Your task to perform on an android device: Search for "usb-b" on walmart, select the first entry, add it to the cart, then select checkout. Image 0: 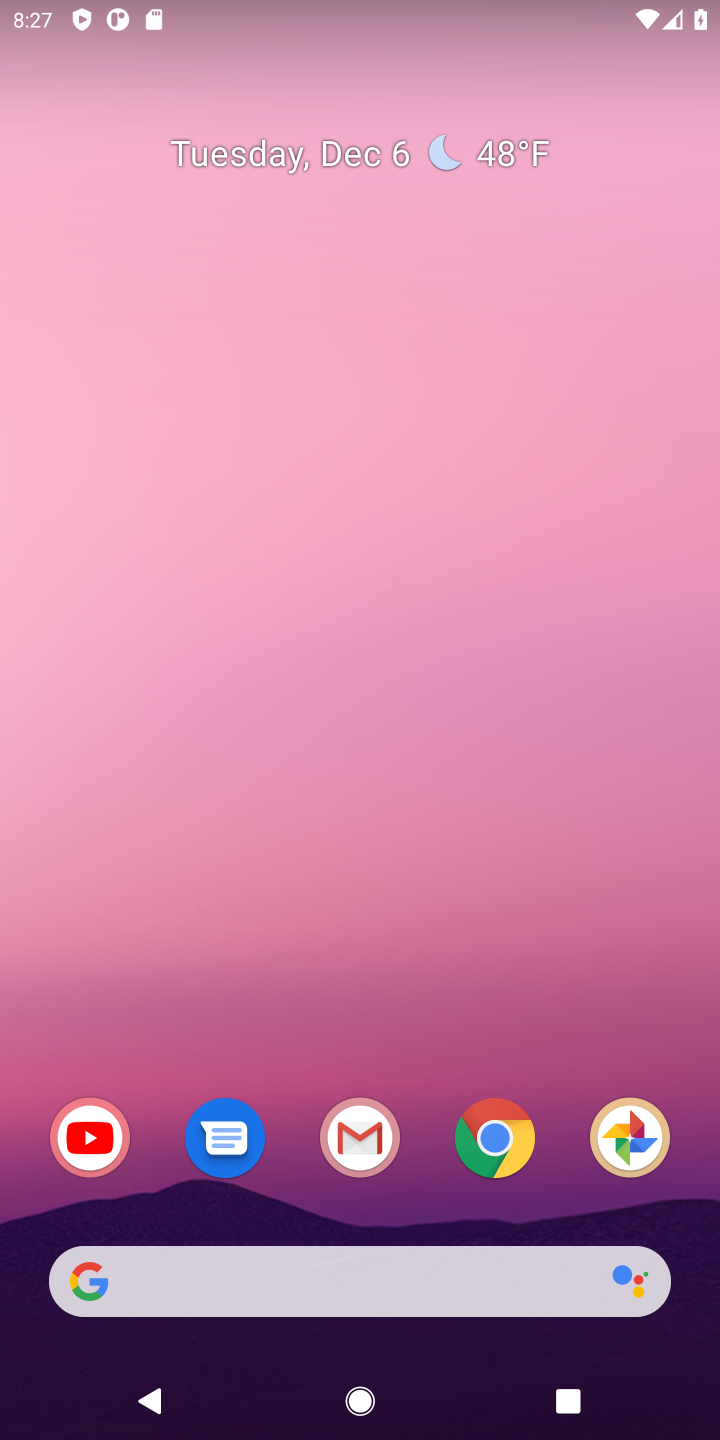
Step 0: click (482, 1146)
Your task to perform on an android device: Search for "usb-b" on walmart, select the first entry, add it to the cart, then select checkout. Image 1: 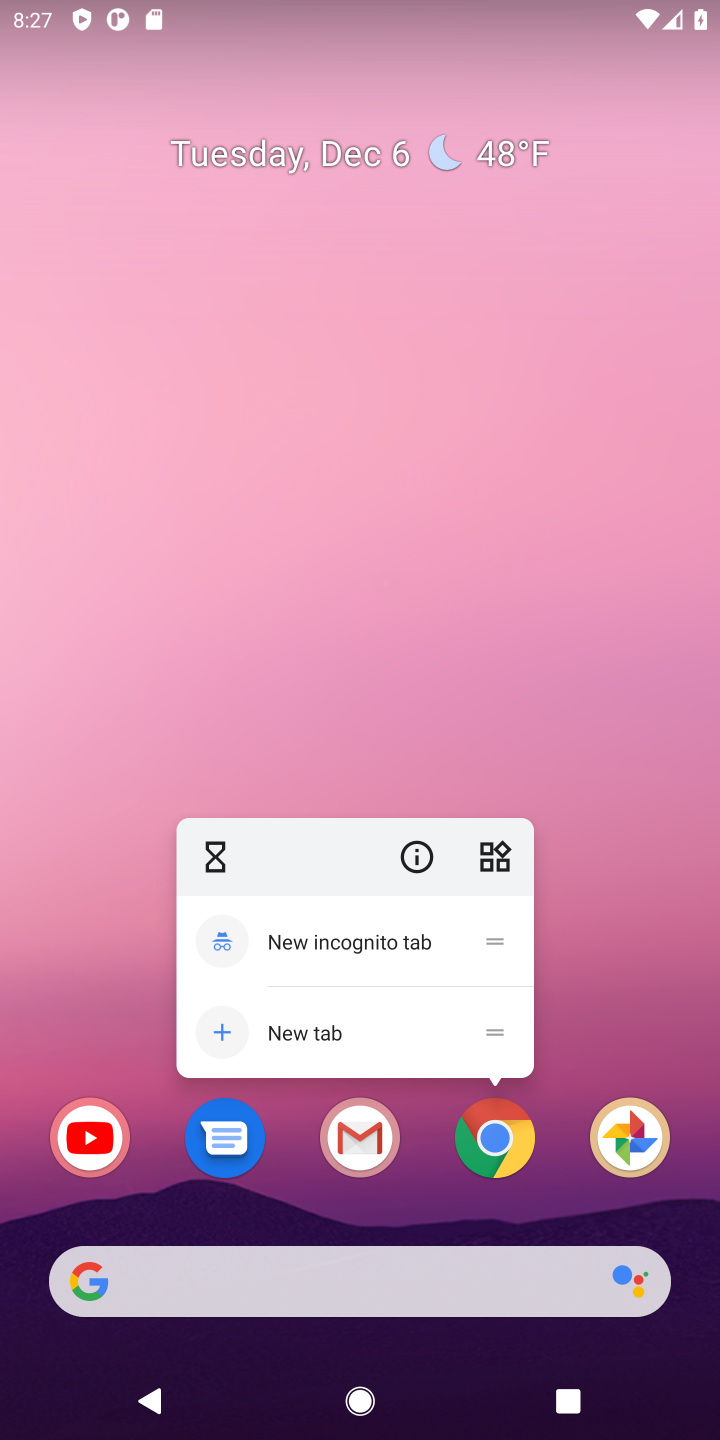
Step 1: click (482, 1146)
Your task to perform on an android device: Search for "usb-b" on walmart, select the first entry, add it to the cart, then select checkout. Image 2: 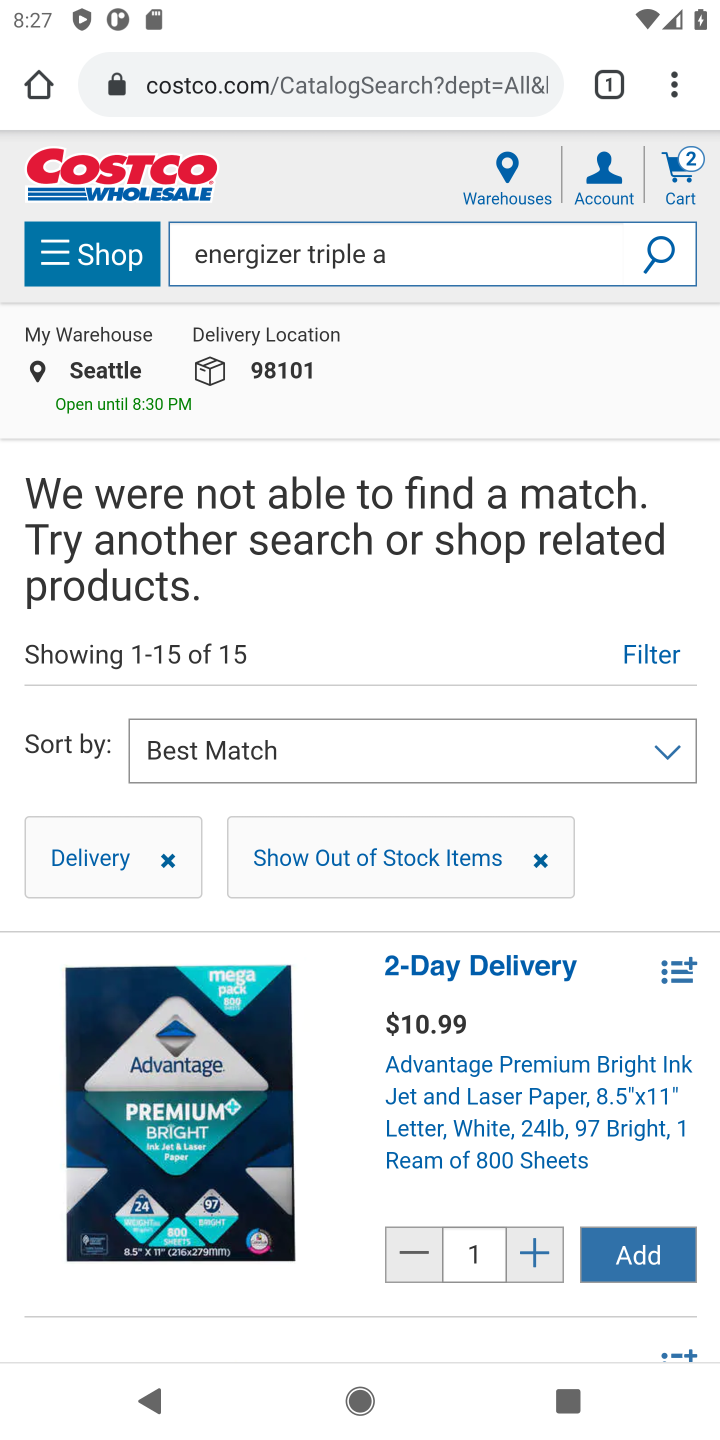
Step 2: click (298, 88)
Your task to perform on an android device: Search for "usb-b" on walmart, select the first entry, add it to the cart, then select checkout. Image 3: 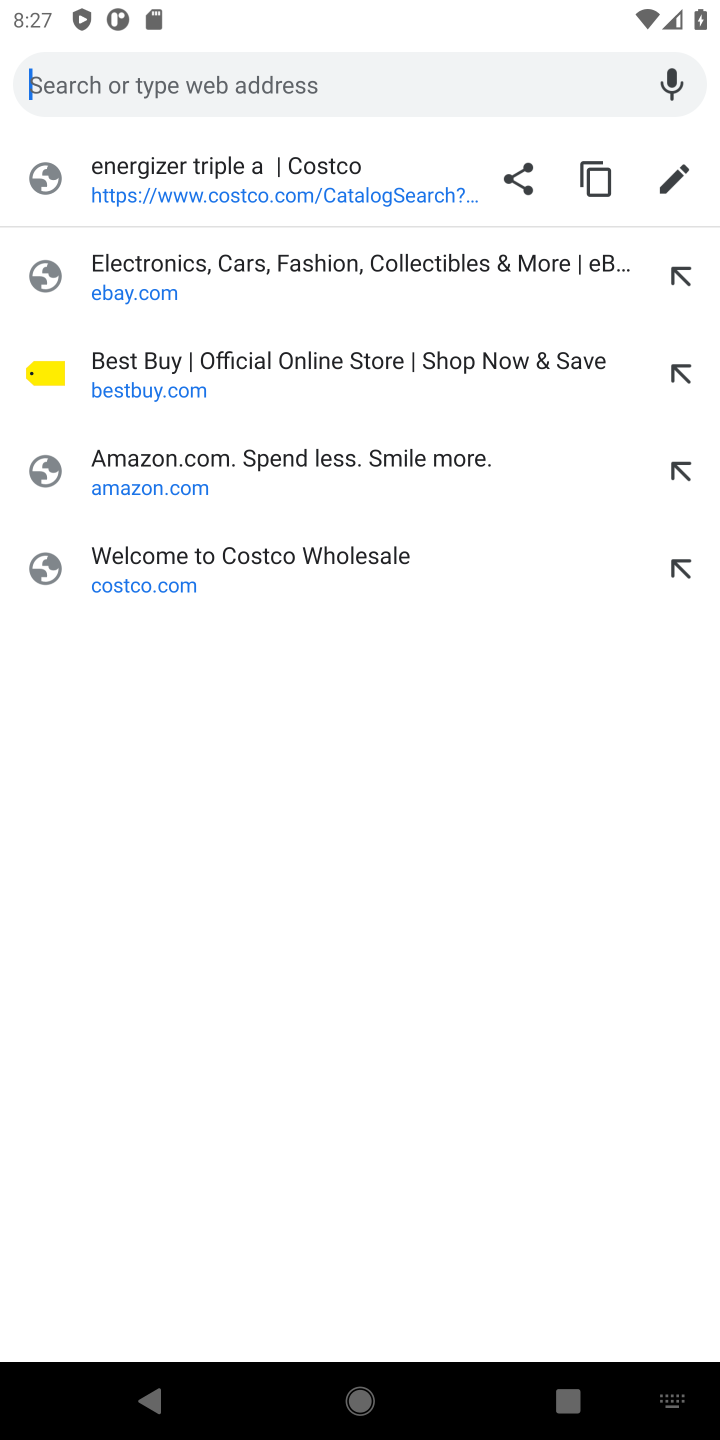
Step 3: type "walmart.com"
Your task to perform on an android device: Search for "usb-b" on walmart, select the first entry, add it to the cart, then select checkout. Image 4: 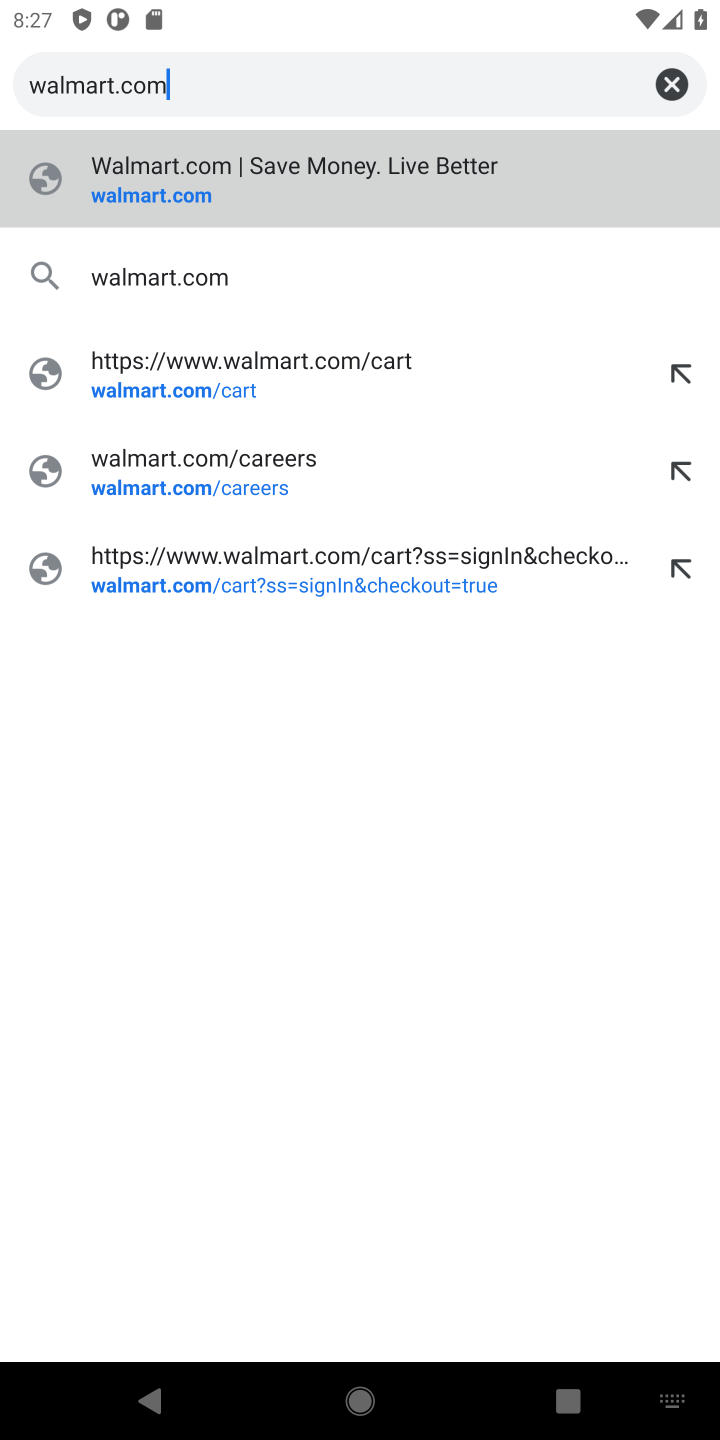
Step 4: click (153, 203)
Your task to perform on an android device: Search for "usb-b" on walmart, select the first entry, add it to the cart, then select checkout. Image 5: 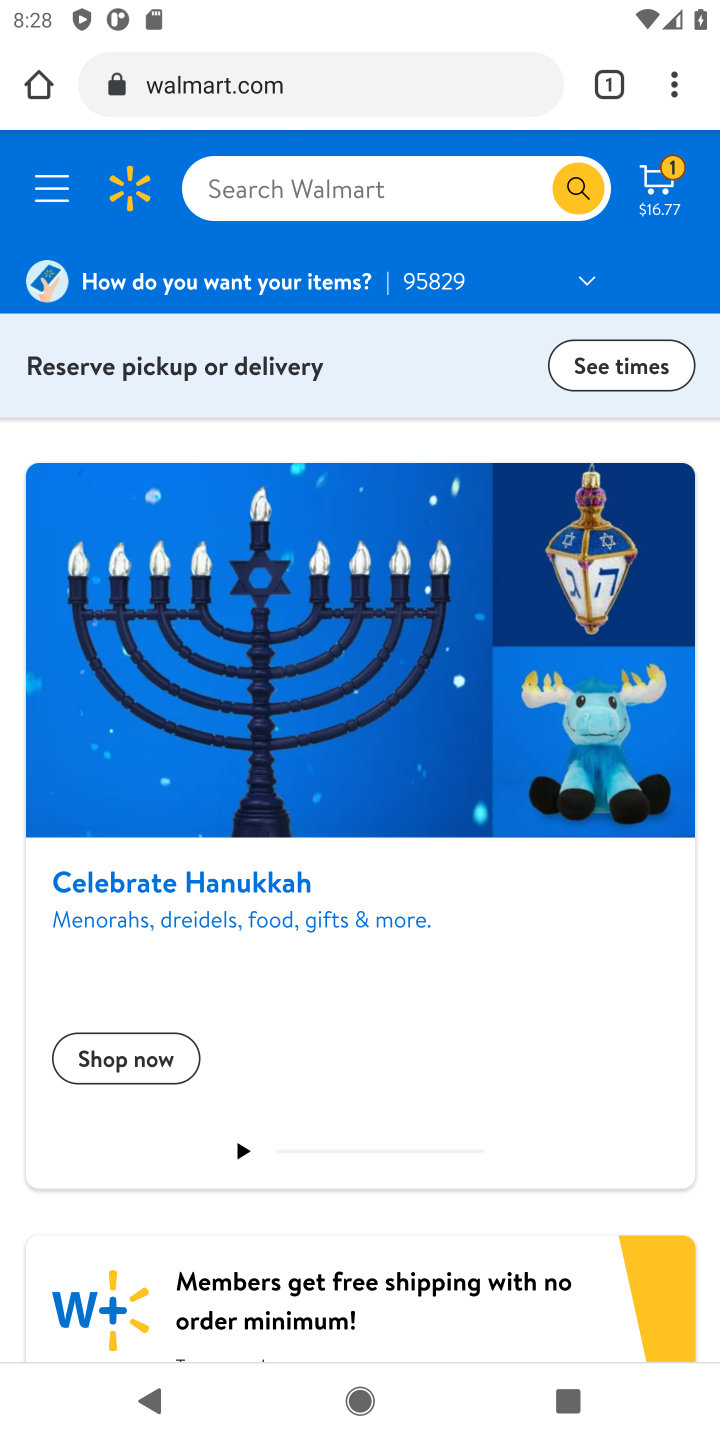
Step 5: click (250, 186)
Your task to perform on an android device: Search for "usb-b" on walmart, select the first entry, add it to the cart, then select checkout. Image 6: 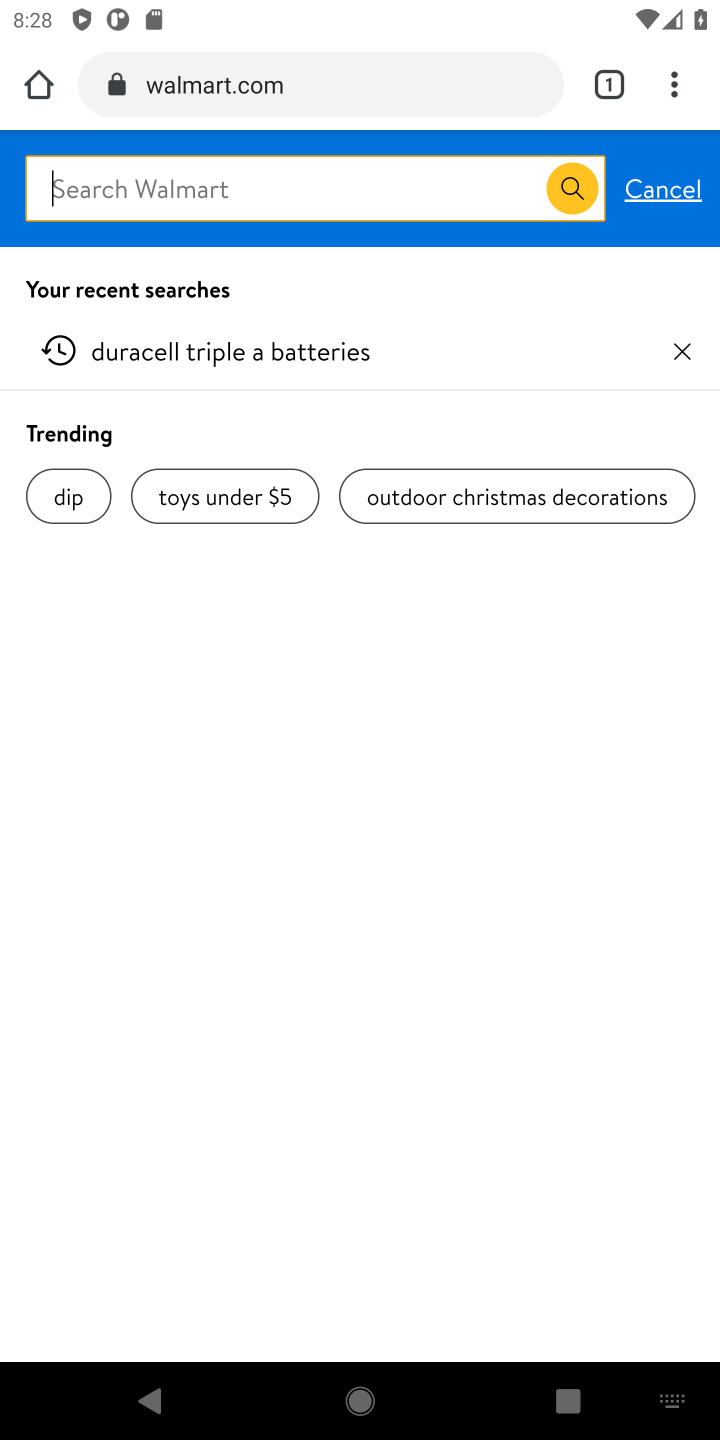
Step 6: type "usb-b"
Your task to perform on an android device: Search for "usb-b" on walmart, select the first entry, add it to the cart, then select checkout. Image 7: 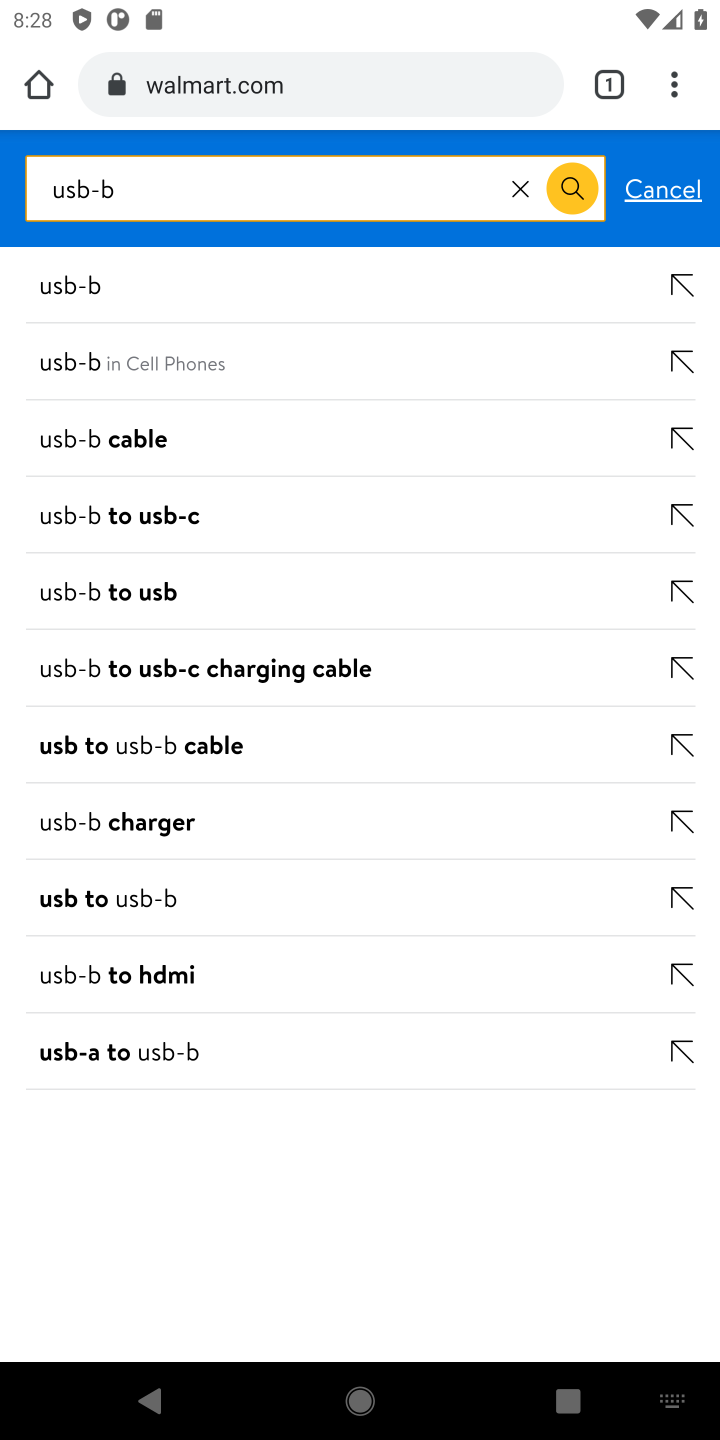
Step 7: click (66, 302)
Your task to perform on an android device: Search for "usb-b" on walmart, select the first entry, add it to the cart, then select checkout. Image 8: 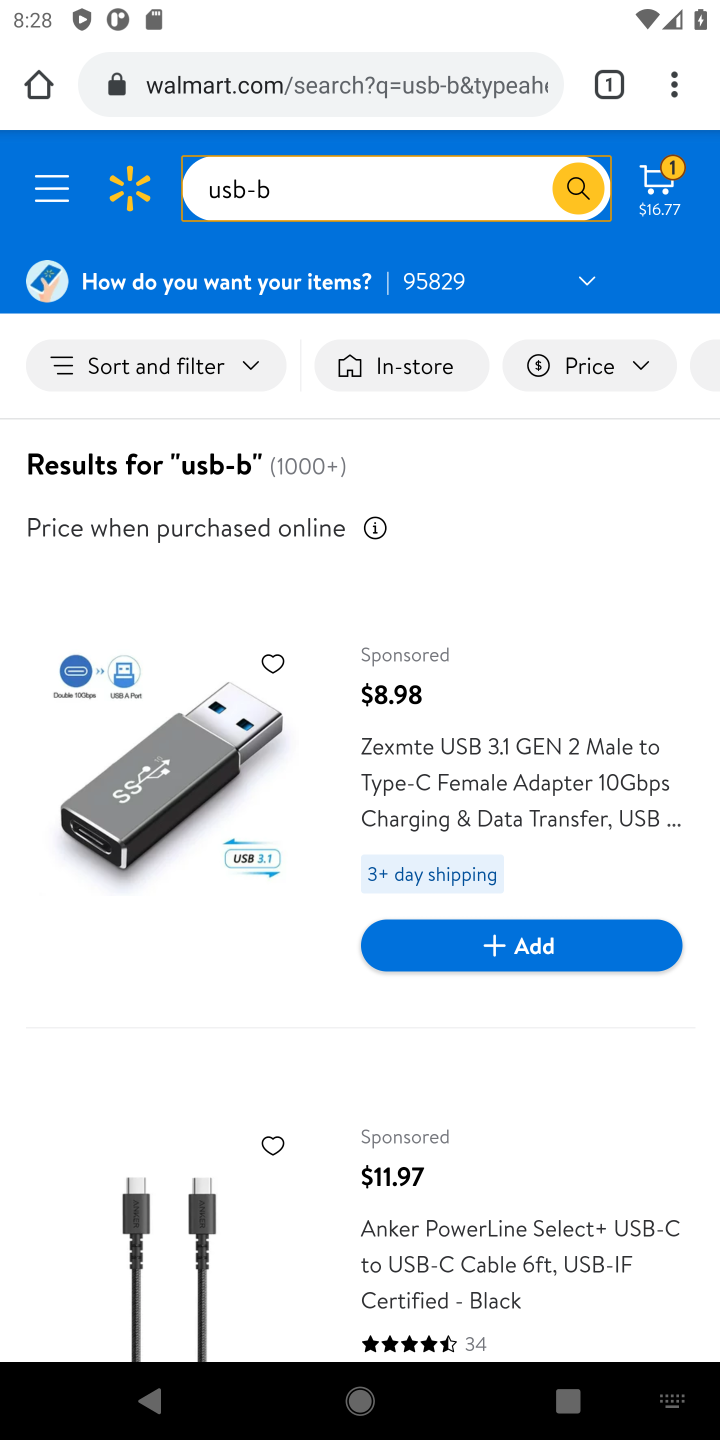
Step 8: click (573, 794)
Your task to perform on an android device: Search for "usb-b" on walmart, select the first entry, add it to the cart, then select checkout. Image 9: 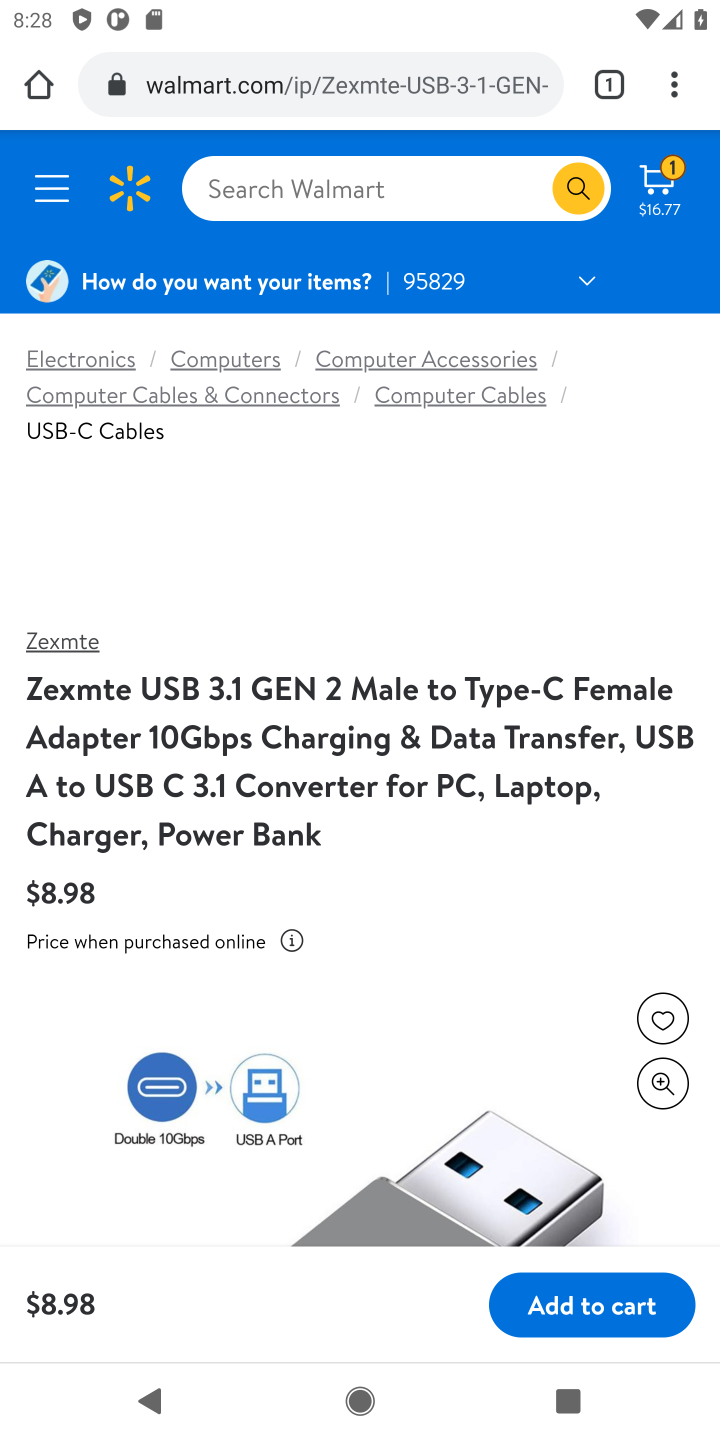
Step 9: task complete